Your task to perform on an android device: Add "amazon basics triple a" to the cart on bestbuy Image 0: 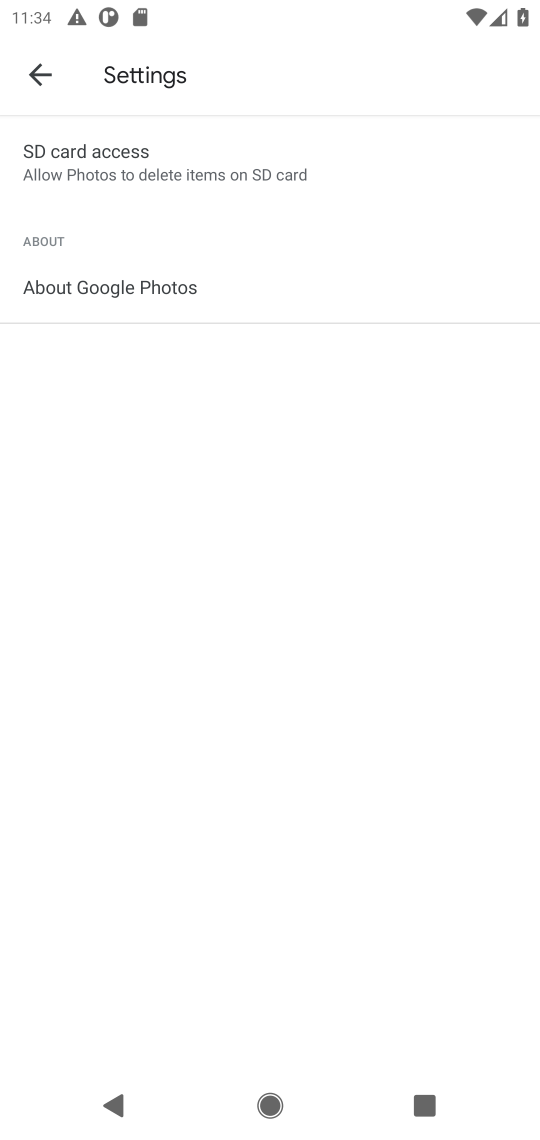
Step 0: press home button
Your task to perform on an android device: Add "amazon basics triple a" to the cart on bestbuy Image 1: 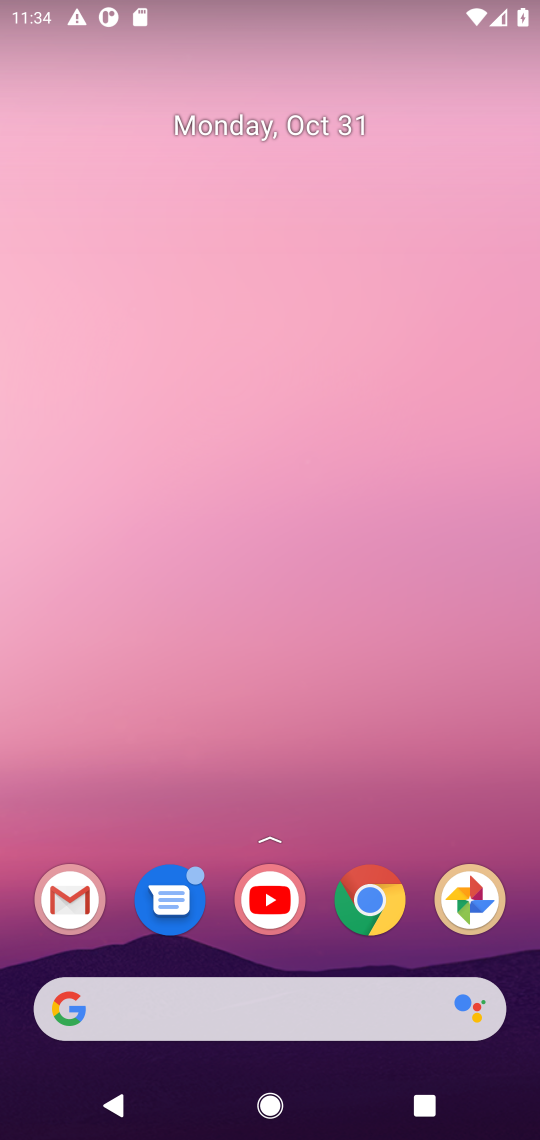
Step 1: click (393, 912)
Your task to perform on an android device: Add "amazon basics triple a" to the cart on bestbuy Image 2: 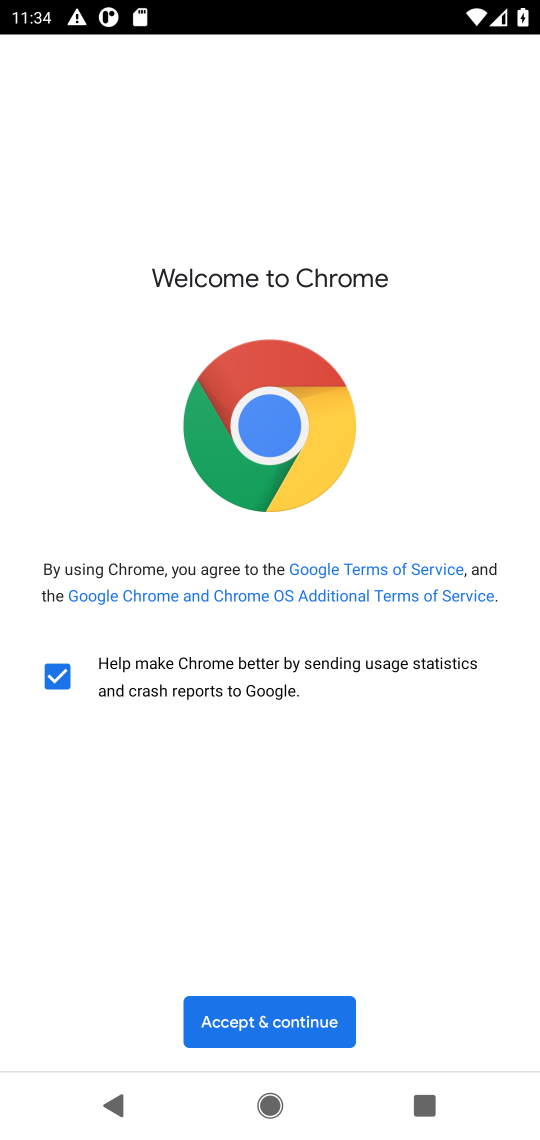
Step 2: click (256, 1037)
Your task to perform on an android device: Add "amazon basics triple a" to the cart on bestbuy Image 3: 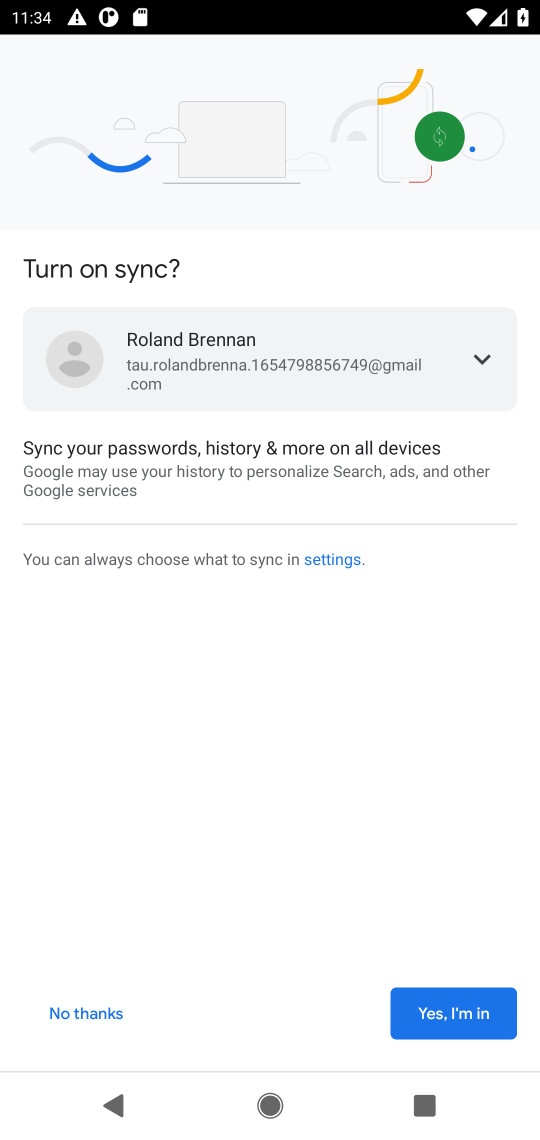
Step 3: click (419, 1021)
Your task to perform on an android device: Add "amazon basics triple a" to the cart on bestbuy Image 4: 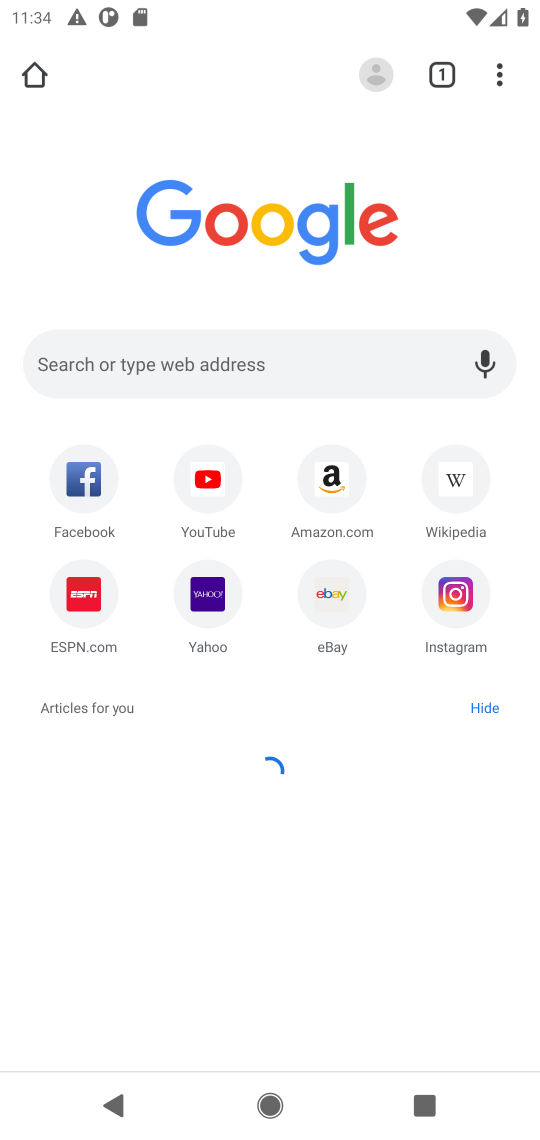
Step 4: click (294, 375)
Your task to perform on an android device: Add "amazon basics triple a" to the cart on bestbuy Image 5: 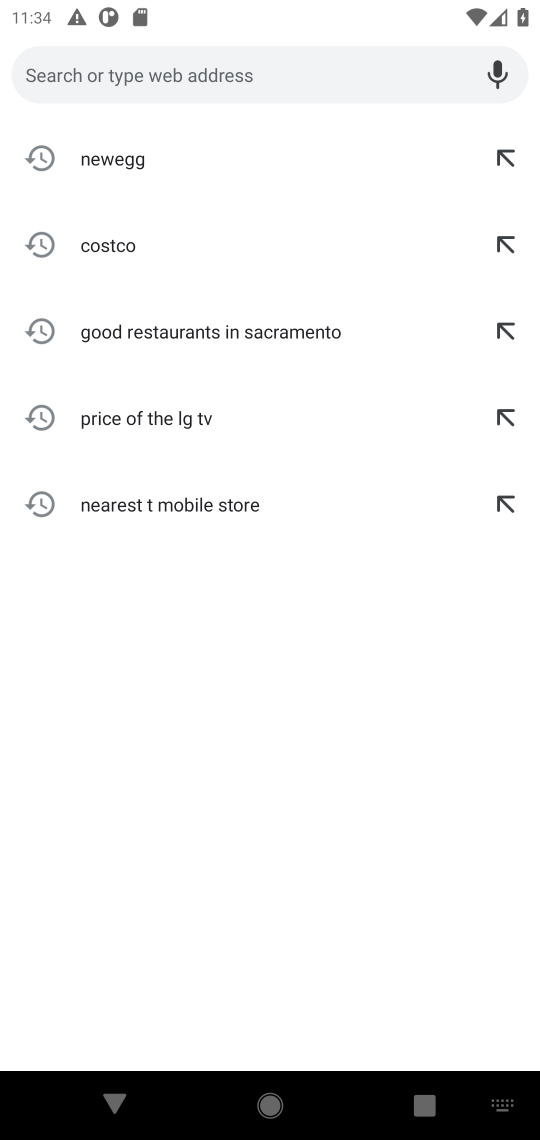
Step 5: type "bestbuy"
Your task to perform on an android device: Add "amazon basics triple a" to the cart on bestbuy Image 6: 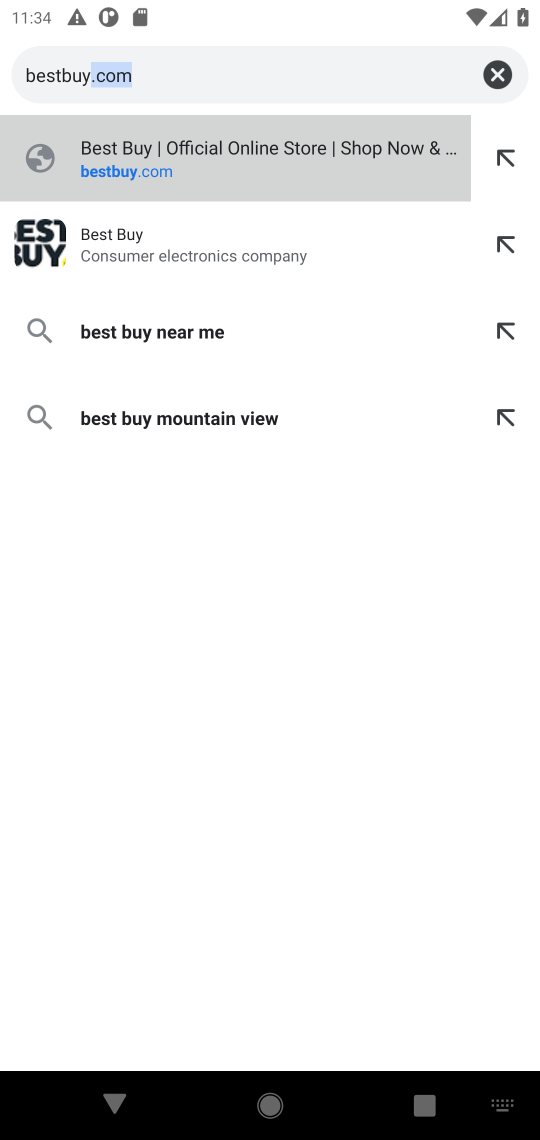
Step 6: press enter
Your task to perform on an android device: Add "amazon basics triple a" to the cart on bestbuy Image 7: 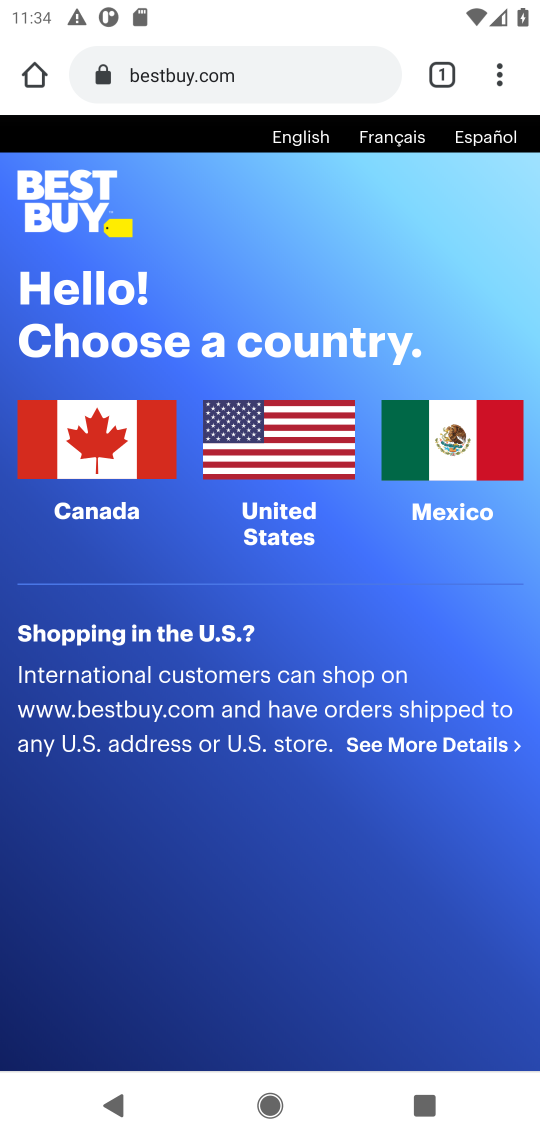
Step 7: click (271, 447)
Your task to perform on an android device: Add "amazon basics triple a" to the cart on bestbuy Image 8: 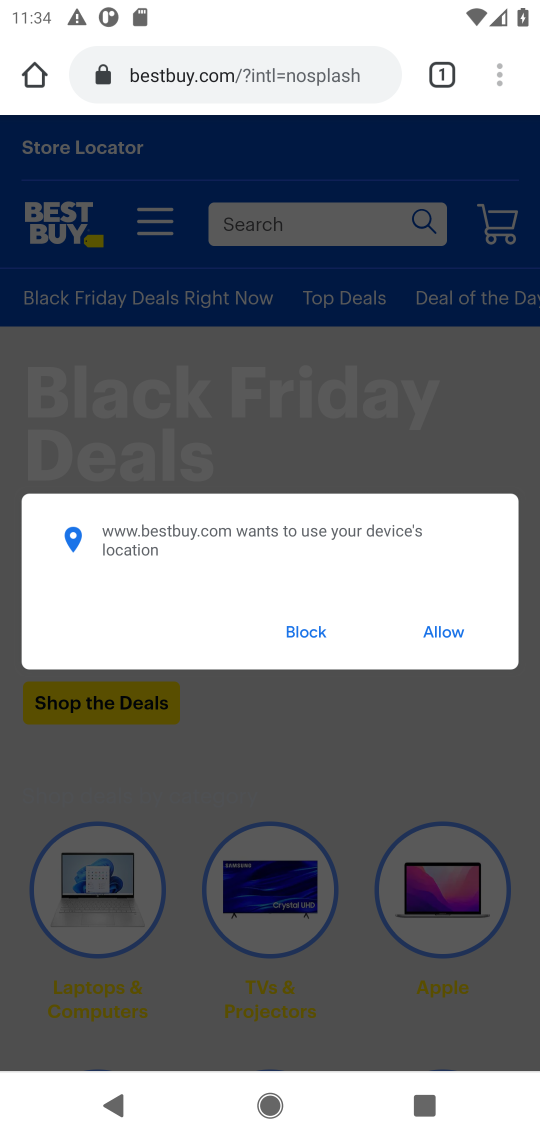
Step 8: click (444, 632)
Your task to perform on an android device: Add "amazon basics triple a" to the cart on bestbuy Image 9: 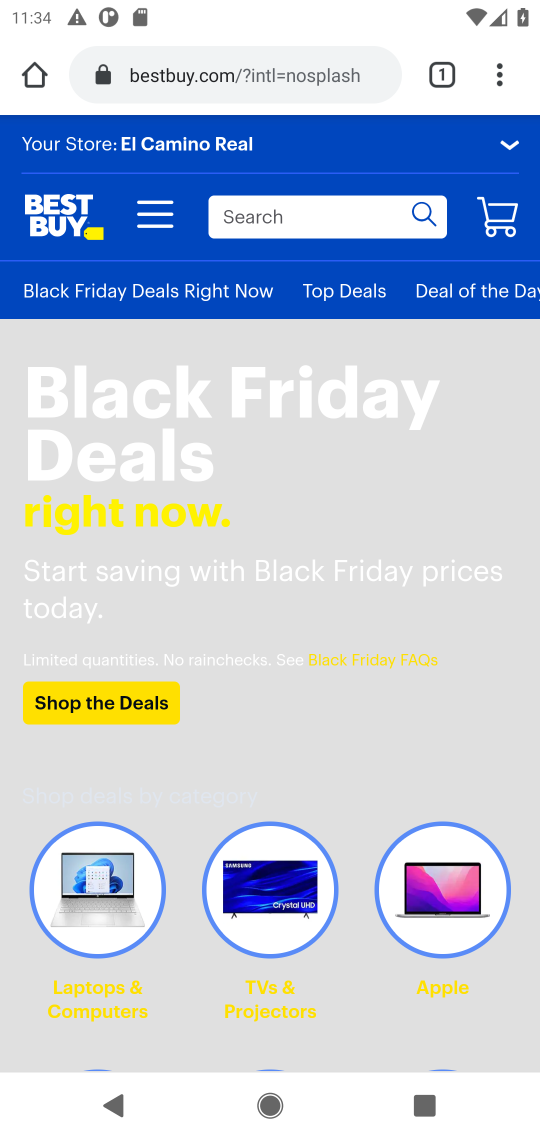
Step 9: click (267, 204)
Your task to perform on an android device: Add "amazon basics triple a" to the cart on bestbuy Image 10: 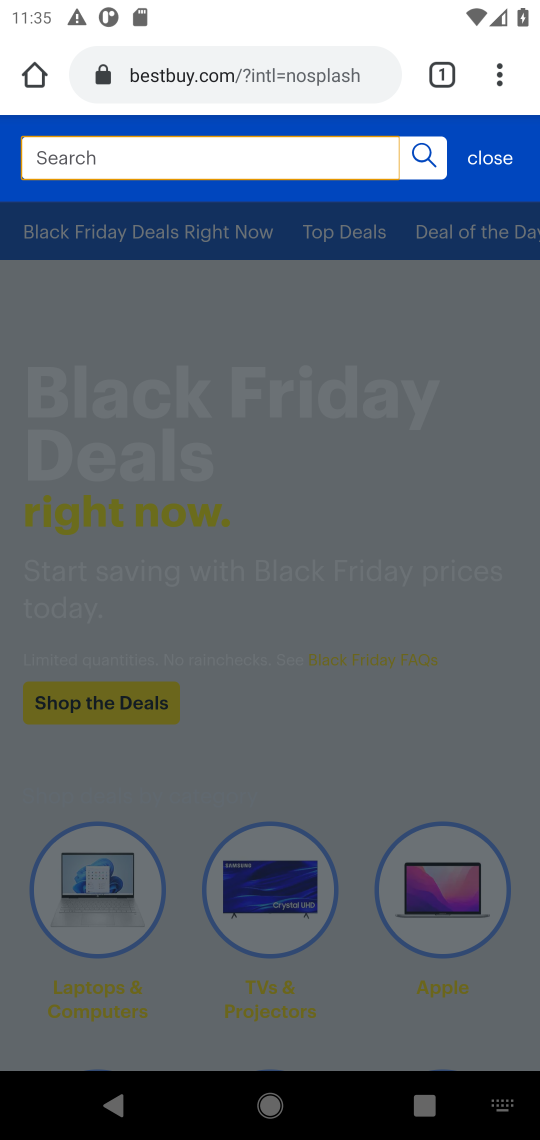
Step 10: type "amazon basics triple a"
Your task to perform on an android device: Add "amazon basics triple a" to the cart on bestbuy Image 11: 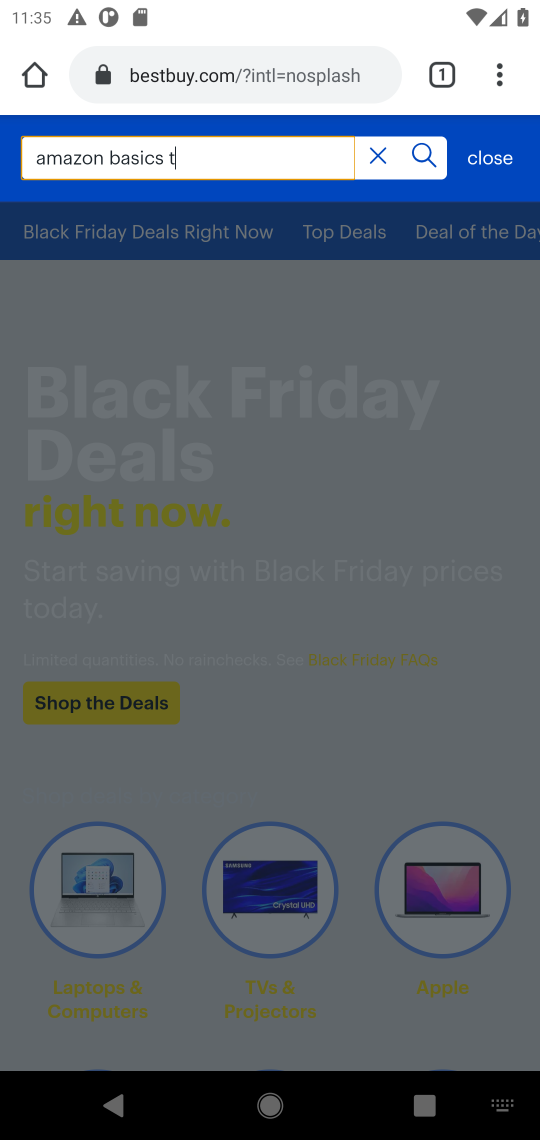
Step 11: press enter
Your task to perform on an android device: Add "amazon basics triple a" to the cart on bestbuy Image 12: 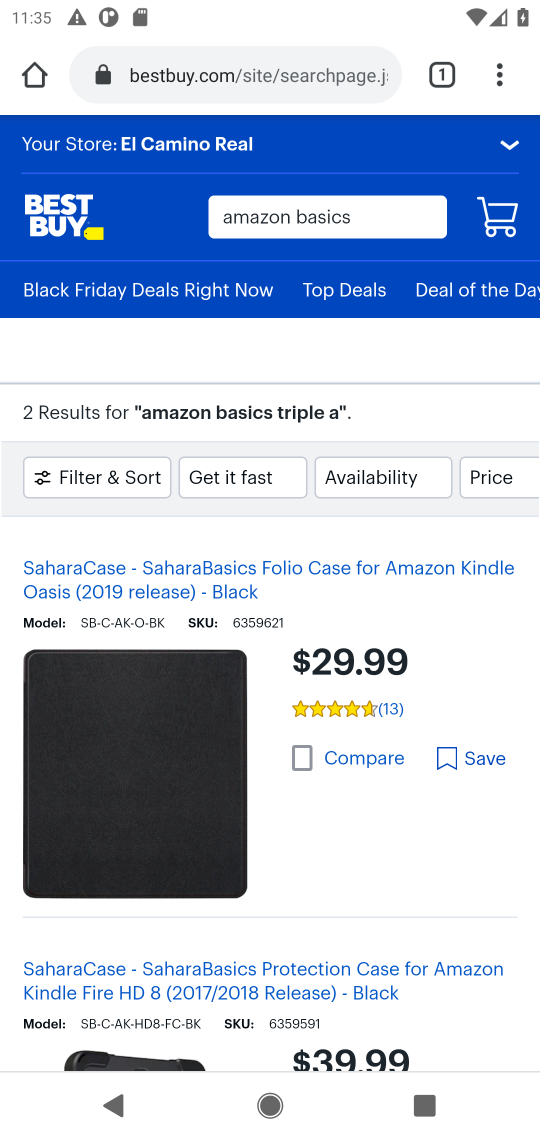
Step 12: task complete